Your task to perform on an android device: change the upload size in google photos Image 0: 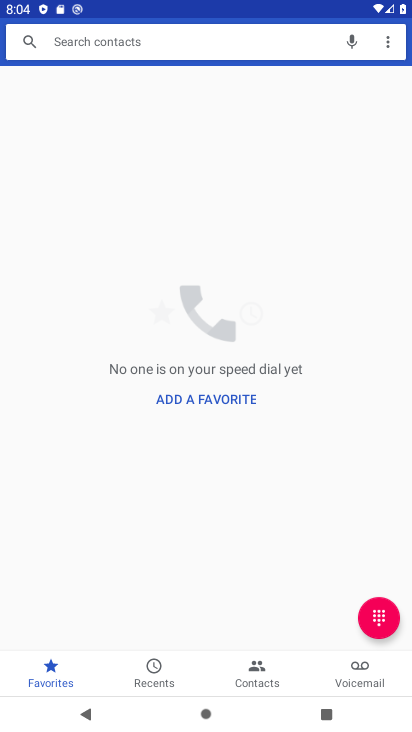
Step 0: press home button
Your task to perform on an android device: change the upload size in google photos Image 1: 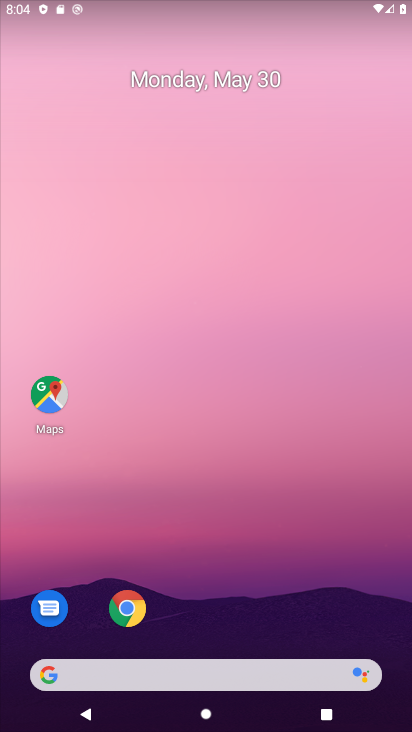
Step 1: drag from (386, 664) to (350, 258)
Your task to perform on an android device: change the upload size in google photos Image 2: 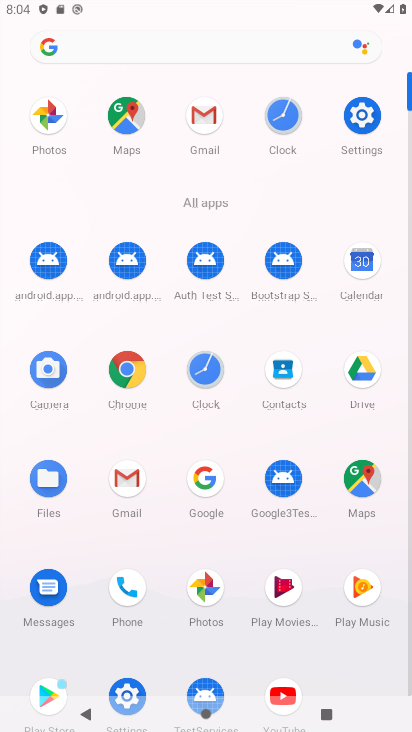
Step 2: click (206, 588)
Your task to perform on an android device: change the upload size in google photos Image 3: 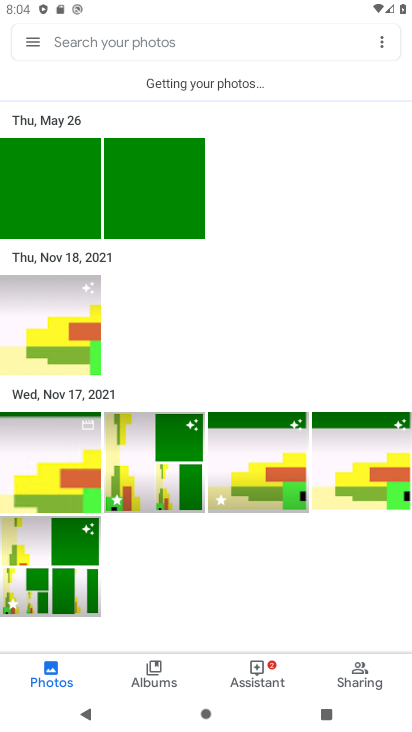
Step 3: click (35, 43)
Your task to perform on an android device: change the upload size in google photos Image 4: 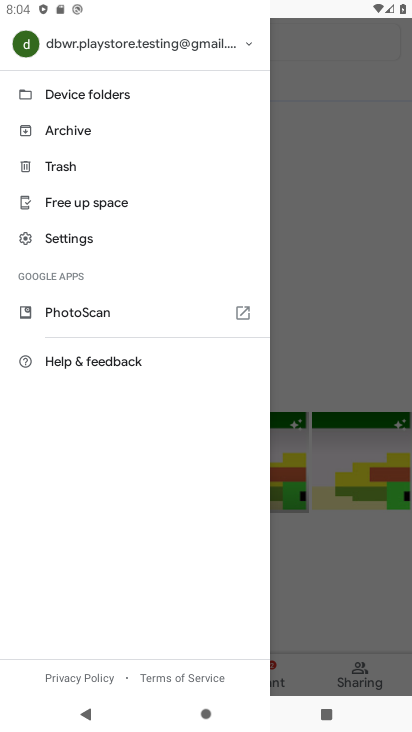
Step 4: click (65, 238)
Your task to perform on an android device: change the upload size in google photos Image 5: 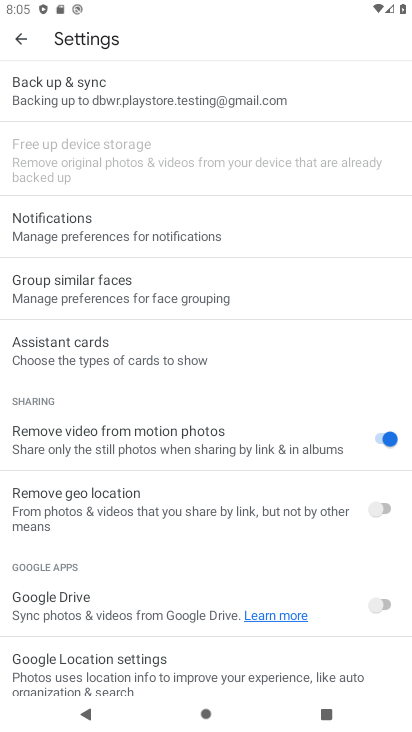
Step 5: click (75, 77)
Your task to perform on an android device: change the upload size in google photos Image 6: 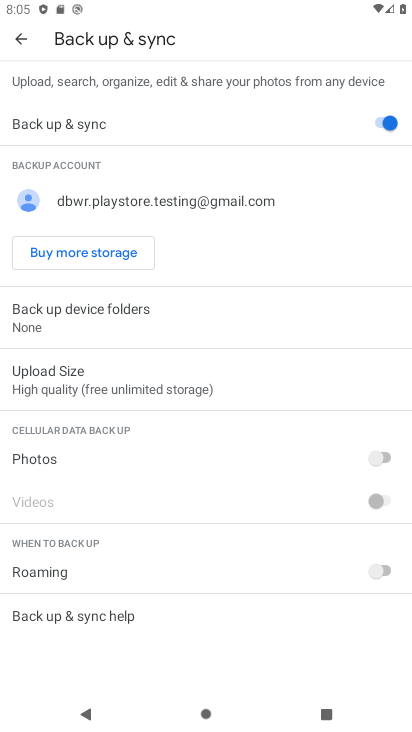
Step 6: click (70, 374)
Your task to perform on an android device: change the upload size in google photos Image 7: 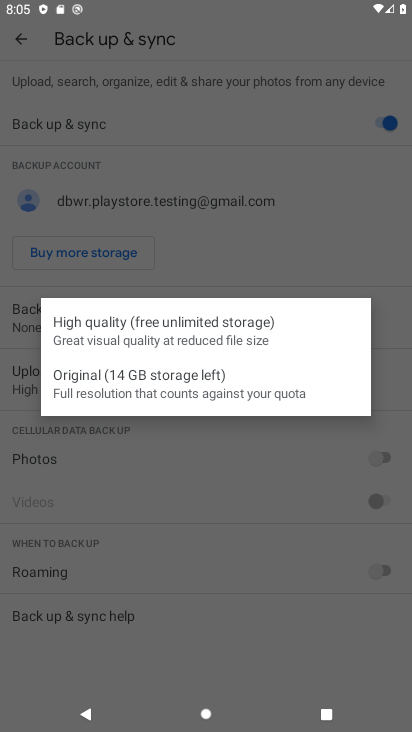
Step 7: click (73, 380)
Your task to perform on an android device: change the upload size in google photos Image 8: 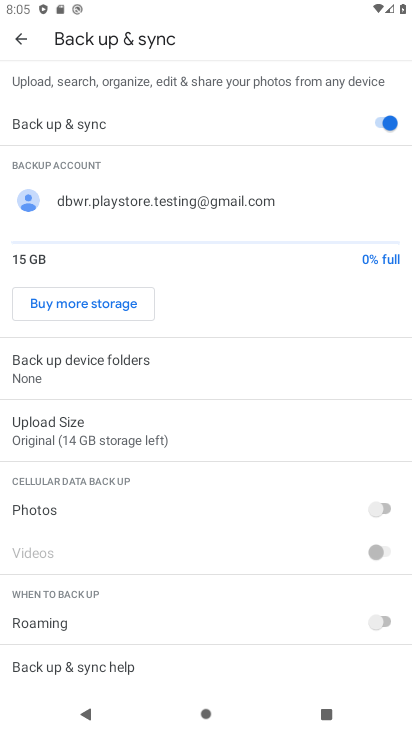
Step 8: task complete